Your task to perform on an android device: find photos in the google photos app Image 0: 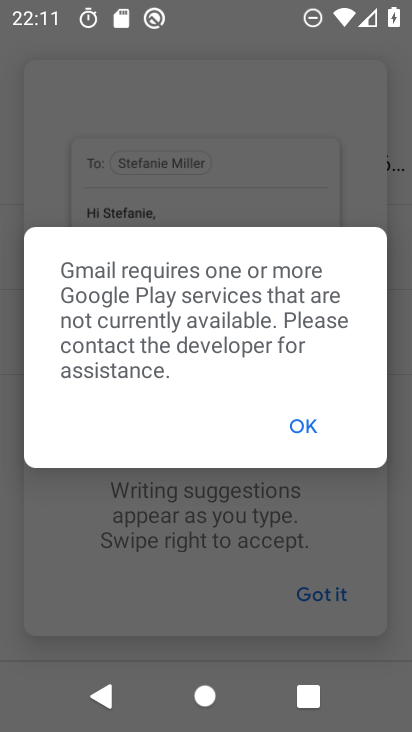
Step 0: press home button
Your task to perform on an android device: find photos in the google photos app Image 1: 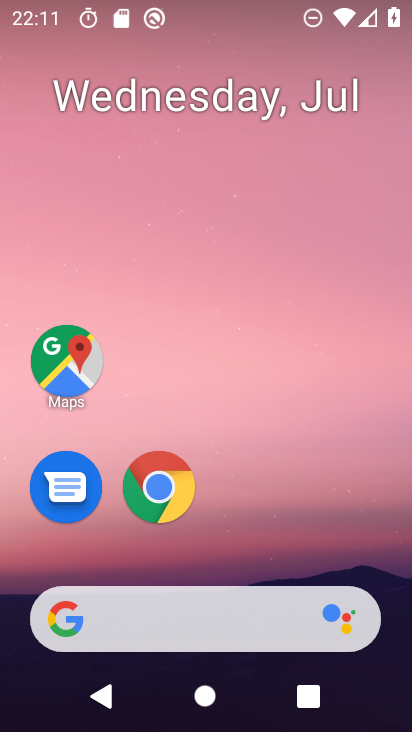
Step 1: drag from (353, 535) to (353, 75)
Your task to perform on an android device: find photos in the google photos app Image 2: 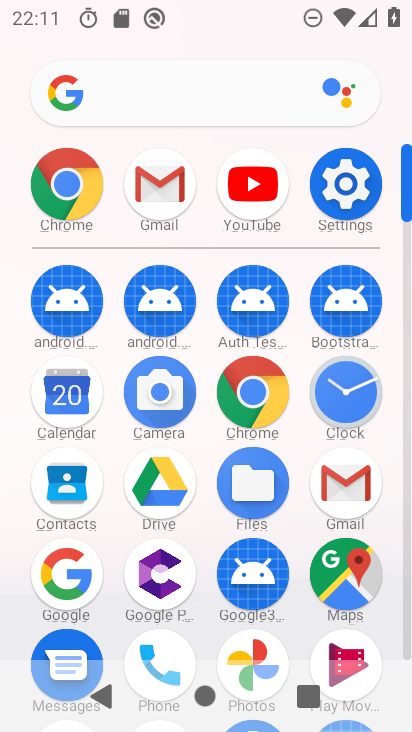
Step 2: drag from (405, 500) to (408, 411)
Your task to perform on an android device: find photos in the google photos app Image 3: 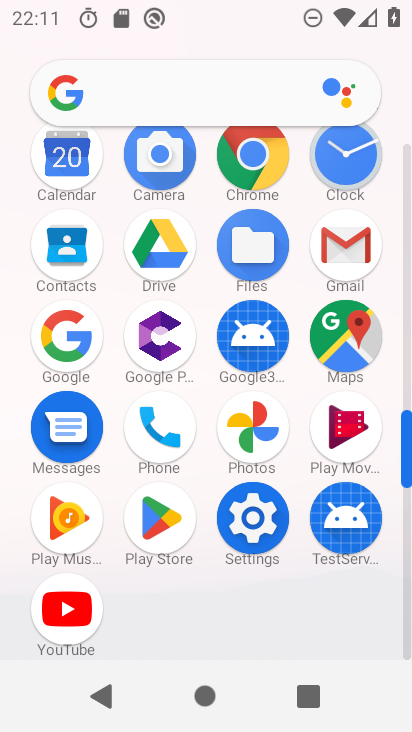
Step 3: click (267, 436)
Your task to perform on an android device: find photos in the google photos app Image 4: 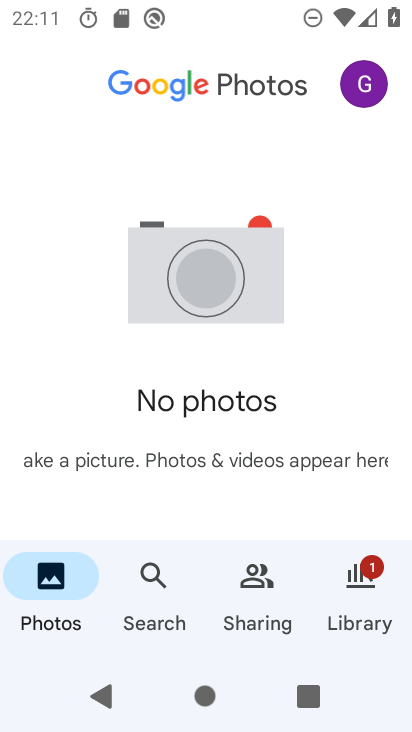
Step 4: task complete